Your task to perform on an android device: Open the web browser Image 0: 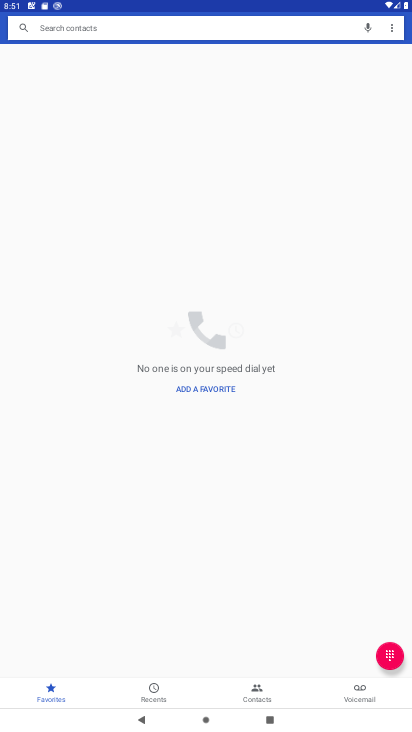
Step 0: press home button
Your task to perform on an android device: Open the web browser Image 1: 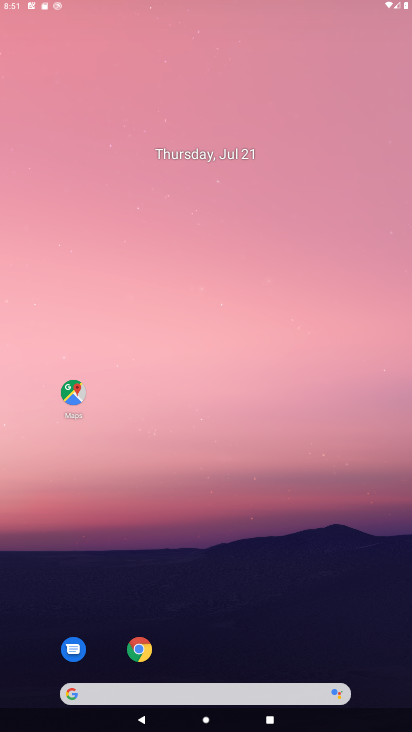
Step 1: drag from (197, 671) to (179, 75)
Your task to perform on an android device: Open the web browser Image 2: 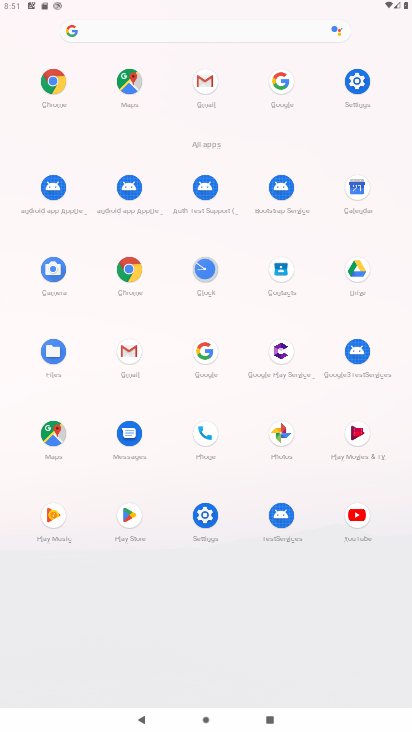
Step 2: click (208, 349)
Your task to perform on an android device: Open the web browser Image 3: 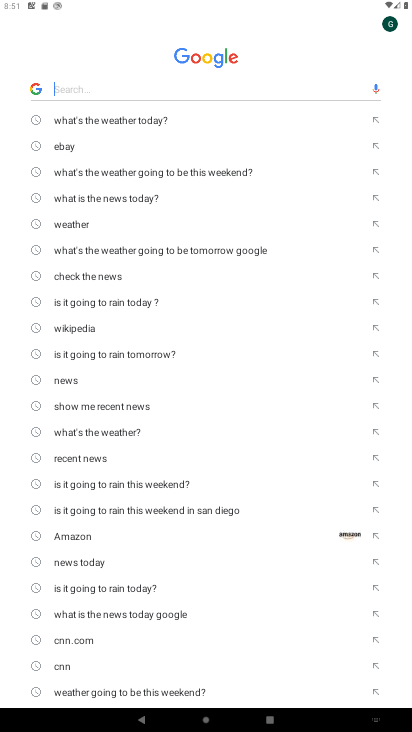
Step 3: task complete